Your task to perform on an android device: see sites visited before in the chrome app Image 0: 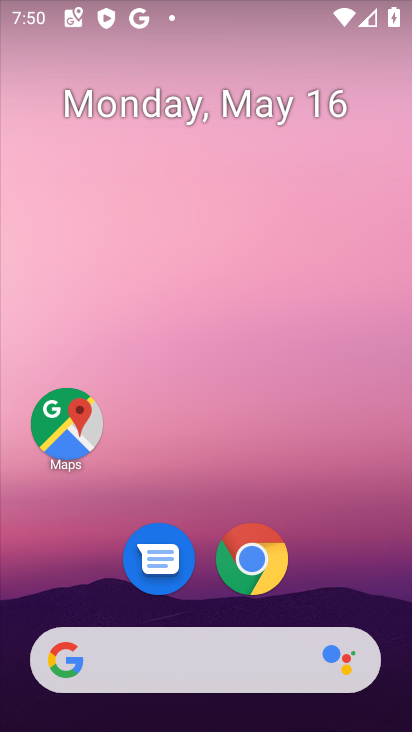
Step 0: press home button
Your task to perform on an android device: see sites visited before in the chrome app Image 1: 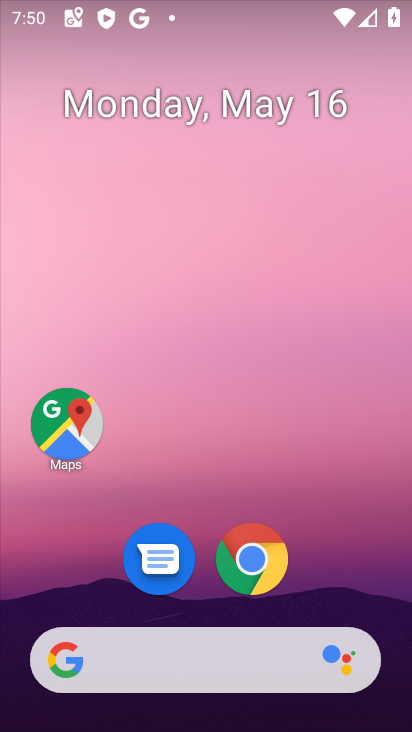
Step 1: drag from (306, 543) to (291, 168)
Your task to perform on an android device: see sites visited before in the chrome app Image 2: 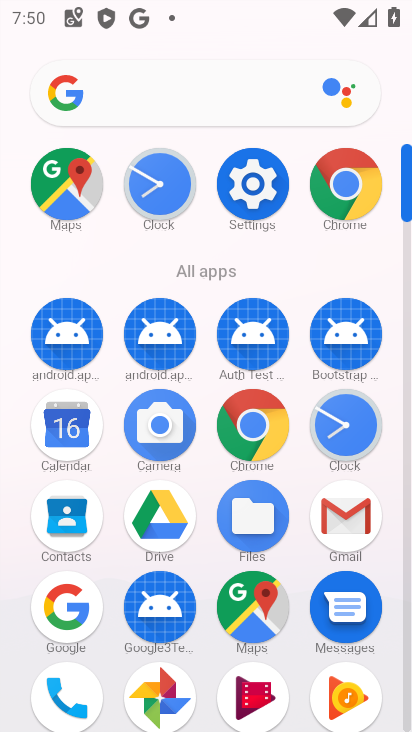
Step 2: click (335, 170)
Your task to perform on an android device: see sites visited before in the chrome app Image 3: 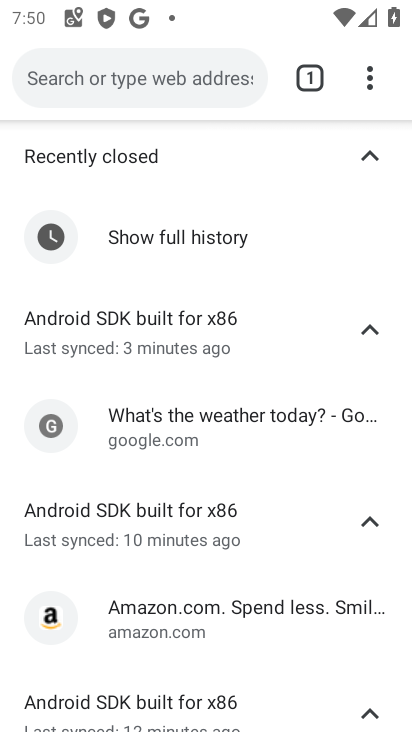
Step 3: task complete